Your task to perform on an android device: change keyboard looks Image 0: 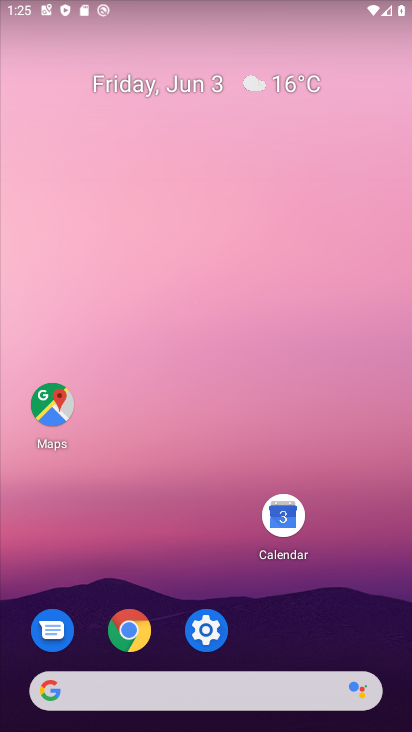
Step 0: drag from (264, 721) to (248, 176)
Your task to perform on an android device: change keyboard looks Image 1: 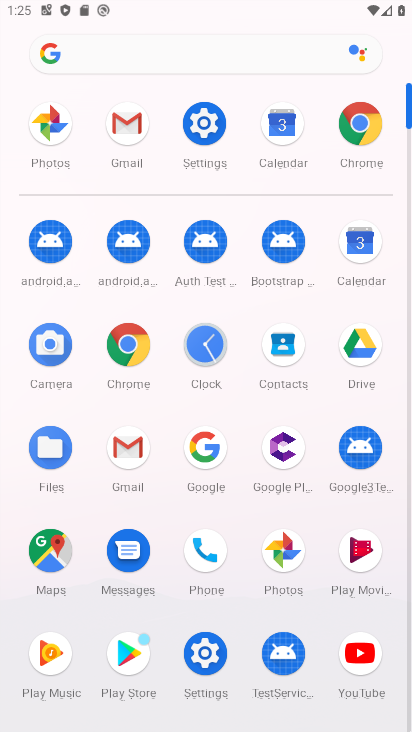
Step 1: click (218, 109)
Your task to perform on an android device: change keyboard looks Image 2: 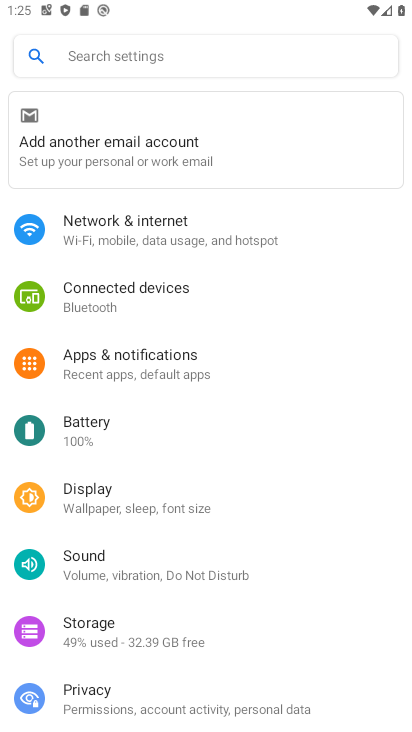
Step 2: click (161, 45)
Your task to perform on an android device: change keyboard looks Image 3: 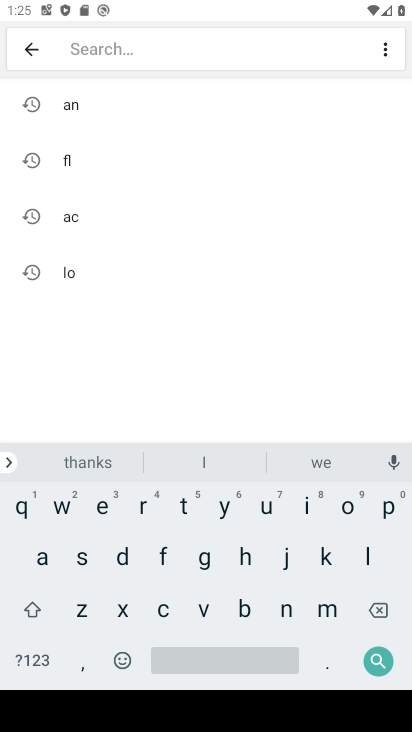
Step 3: click (328, 564)
Your task to perform on an android device: change keyboard looks Image 4: 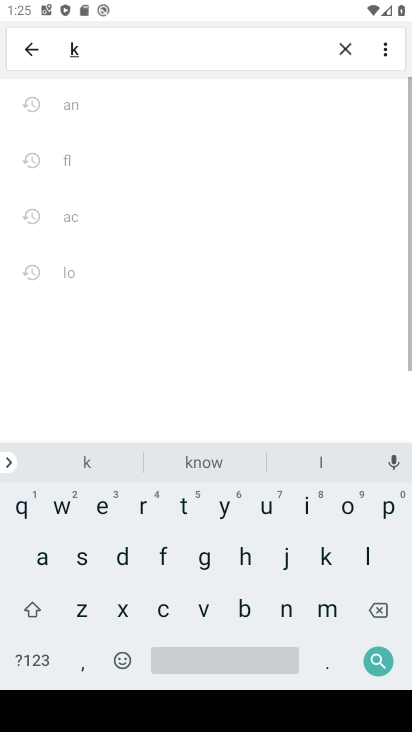
Step 4: click (106, 503)
Your task to perform on an android device: change keyboard looks Image 5: 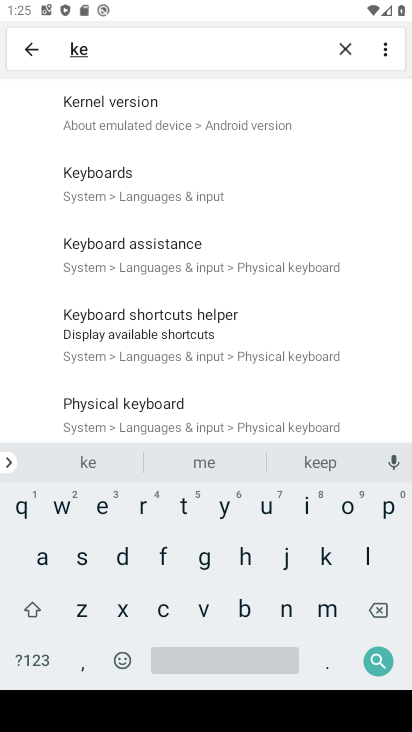
Step 5: click (137, 168)
Your task to perform on an android device: change keyboard looks Image 6: 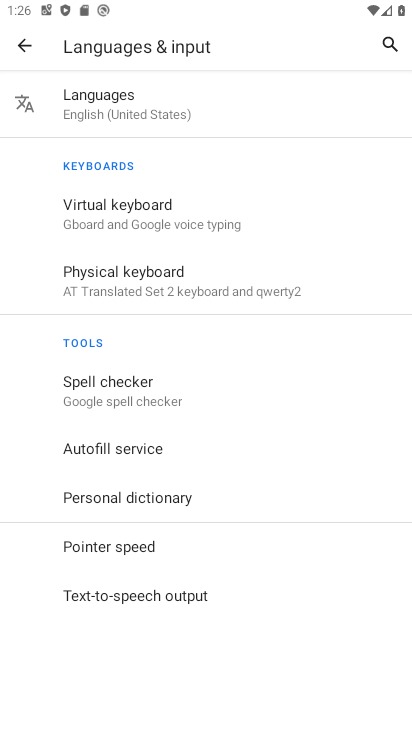
Step 6: click (156, 227)
Your task to perform on an android device: change keyboard looks Image 7: 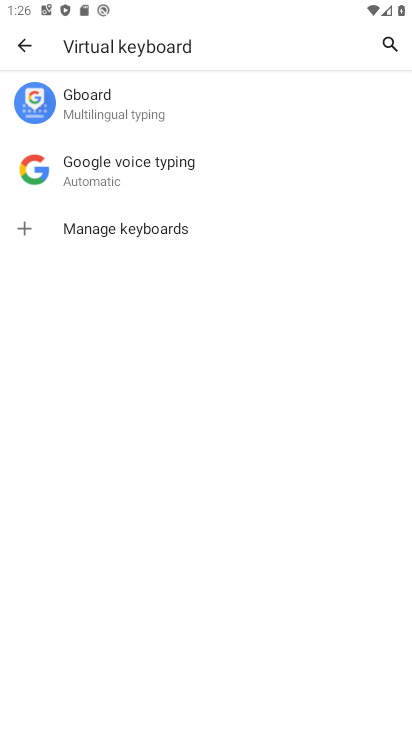
Step 7: click (97, 100)
Your task to perform on an android device: change keyboard looks Image 8: 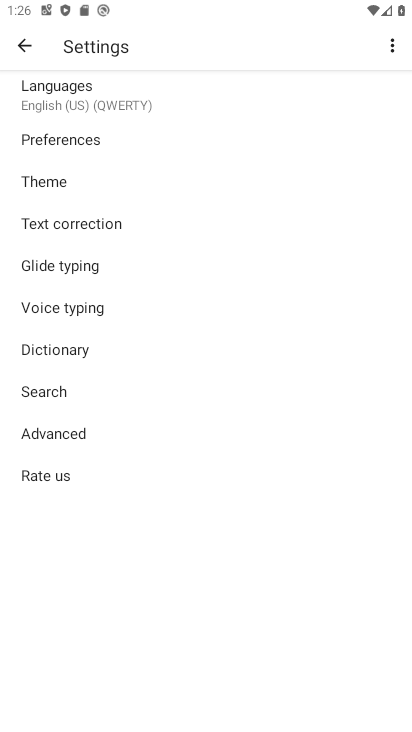
Step 8: click (76, 191)
Your task to perform on an android device: change keyboard looks Image 9: 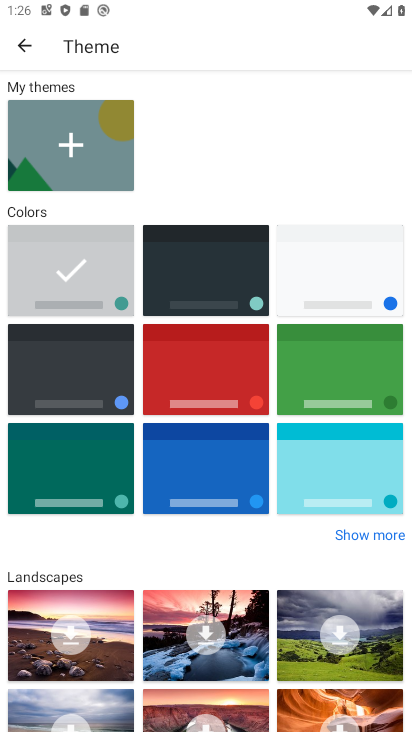
Step 9: click (99, 396)
Your task to perform on an android device: change keyboard looks Image 10: 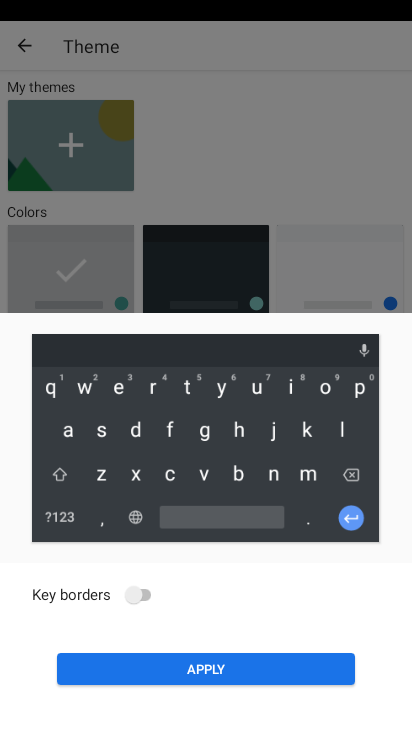
Step 10: click (150, 597)
Your task to perform on an android device: change keyboard looks Image 11: 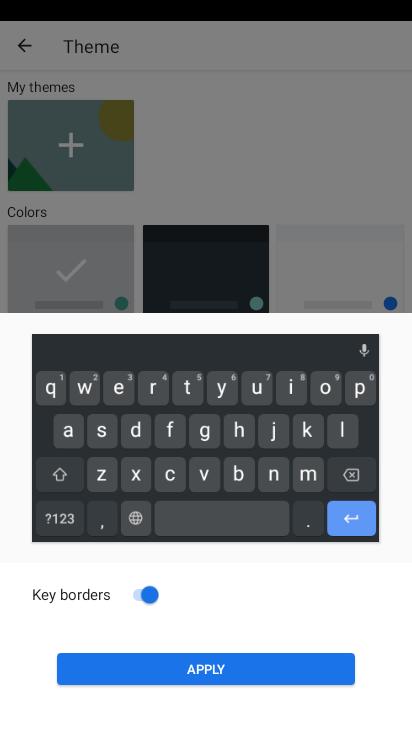
Step 11: click (210, 665)
Your task to perform on an android device: change keyboard looks Image 12: 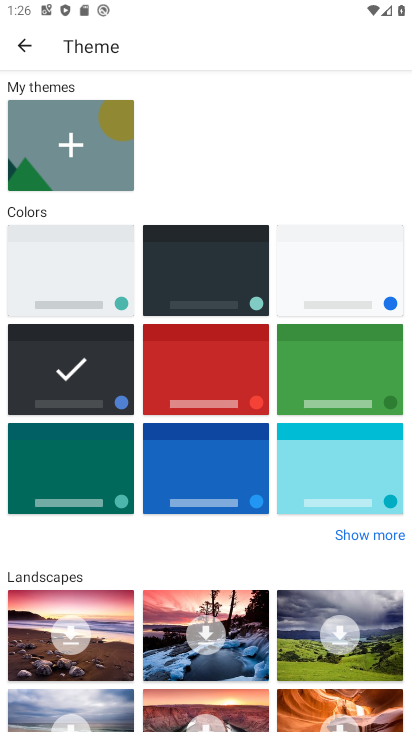
Step 12: task complete